Your task to perform on an android device: turn off notifications settings in the gmail app Image 0: 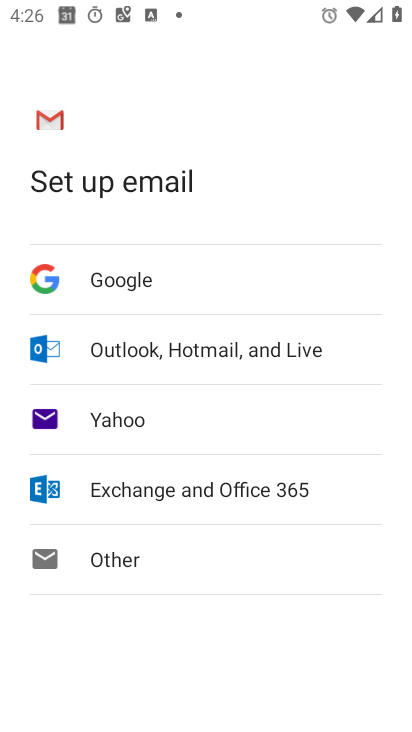
Step 0: press home button
Your task to perform on an android device: turn off notifications settings in the gmail app Image 1: 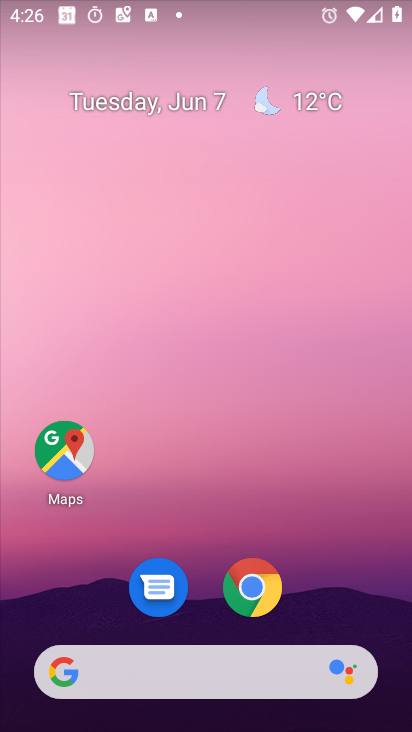
Step 1: drag from (250, 585) to (308, 154)
Your task to perform on an android device: turn off notifications settings in the gmail app Image 2: 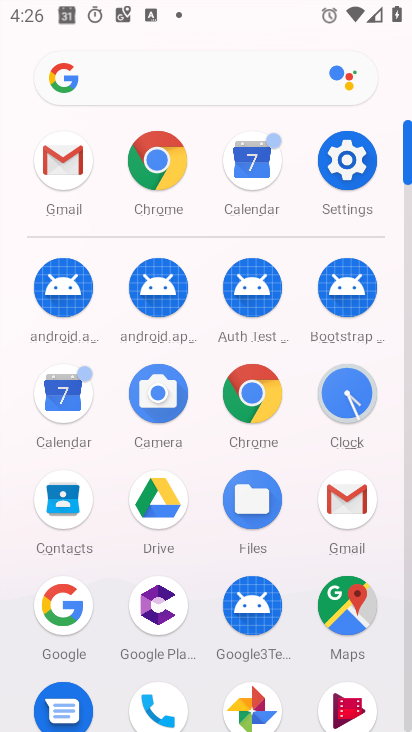
Step 2: click (336, 477)
Your task to perform on an android device: turn off notifications settings in the gmail app Image 3: 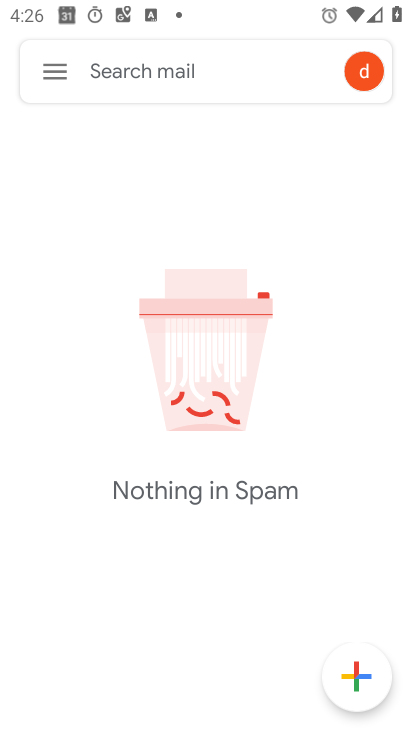
Step 3: click (65, 63)
Your task to perform on an android device: turn off notifications settings in the gmail app Image 4: 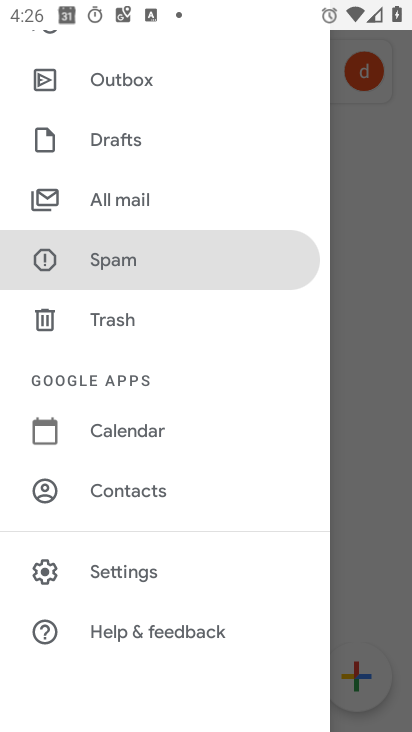
Step 4: drag from (135, 458) to (162, 187)
Your task to perform on an android device: turn off notifications settings in the gmail app Image 5: 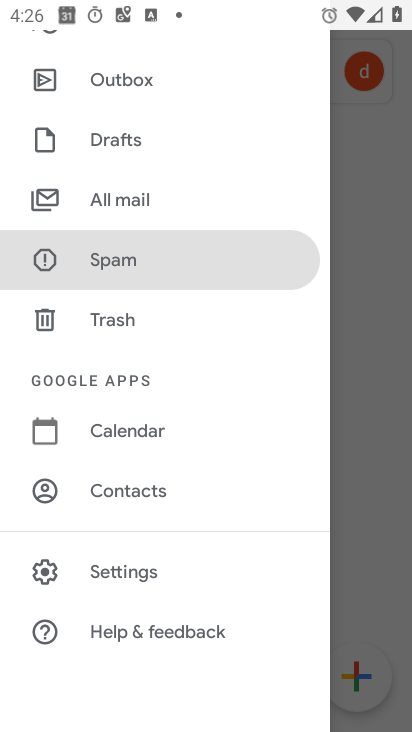
Step 5: click (142, 570)
Your task to perform on an android device: turn off notifications settings in the gmail app Image 6: 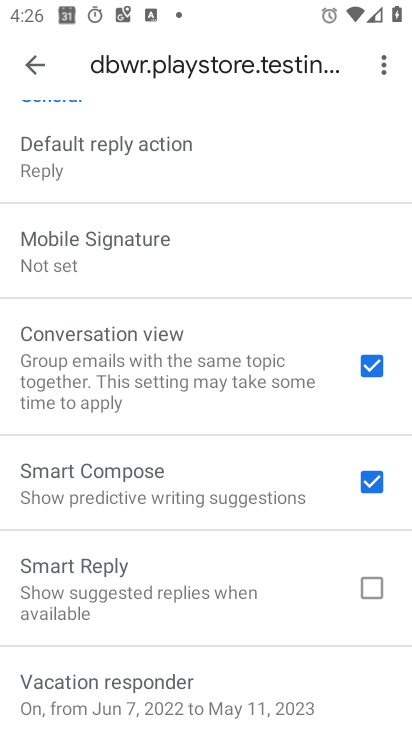
Step 6: click (43, 57)
Your task to perform on an android device: turn off notifications settings in the gmail app Image 7: 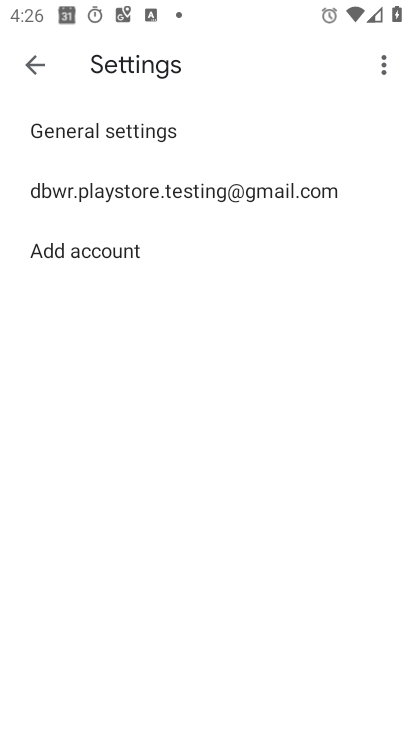
Step 7: click (92, 127)
Your task to perform on an android device: turn off notifications settings in the gmail app Image 8: 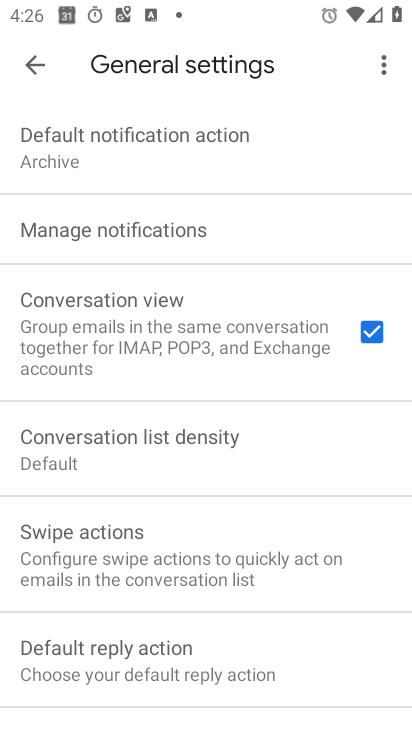
Step 8: click (161, 227)
Your task to perform on an android device: turn off notifications settings in the gmail app Image 9: 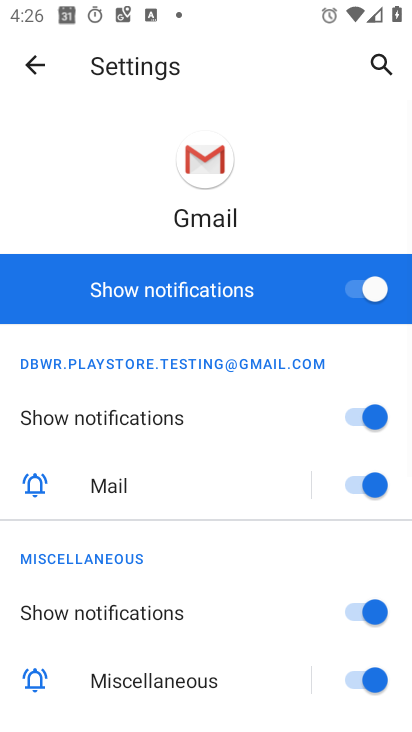
Step 9: click (233, 285)
Your task to perform on an android device: turn off notifications settings in the gmail app Image 10: 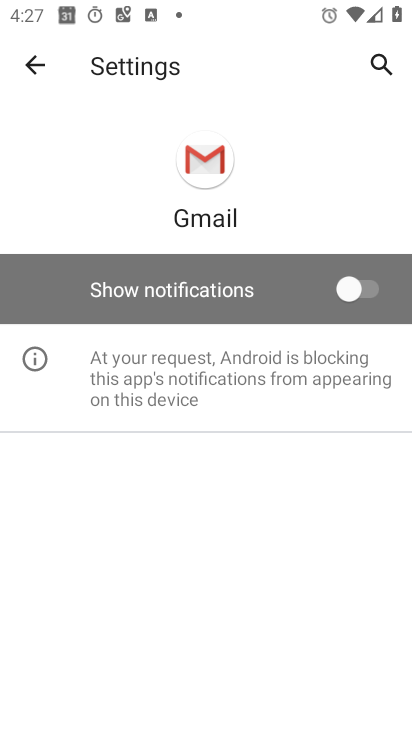
Step 10: task complete